Your task to perform on an android device: see tabs open on other devices in the chrome app Image 0: 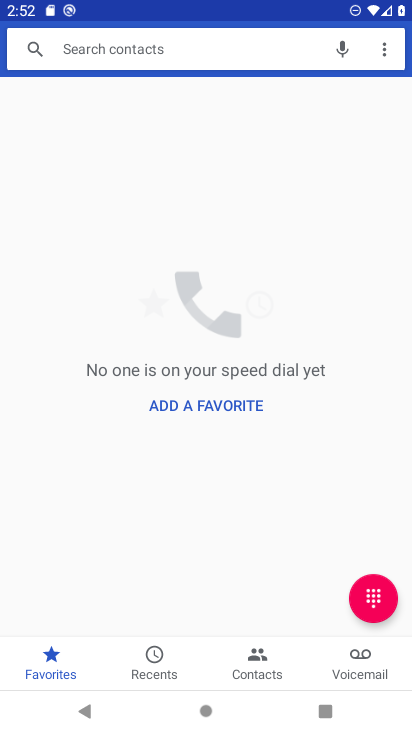
Step 0: press home button
Your task to perform on an android device: see tabs open on other devices in the chrome app Image 1: 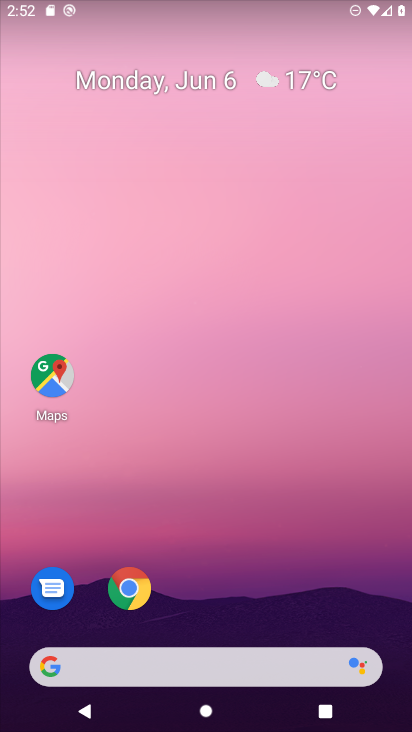
Step 1: click (131, 595)
Your task to perform on an android device: see tabs open on other devices in the chrome app Image 2: 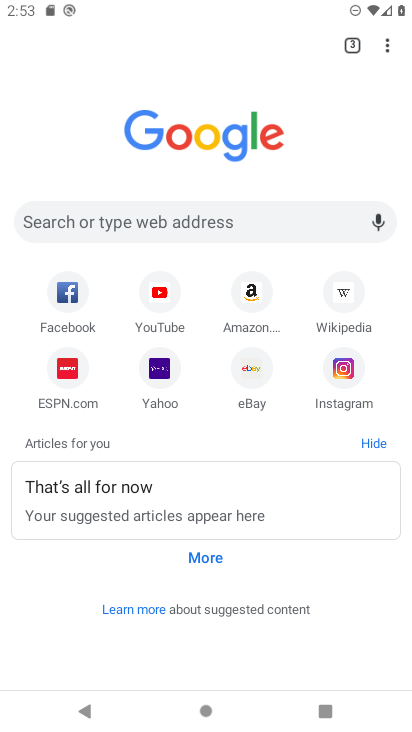
Step 2: click (387, 41)
Your task to perform on an android device: see tabs open on other devices in the chrome app Image 3: 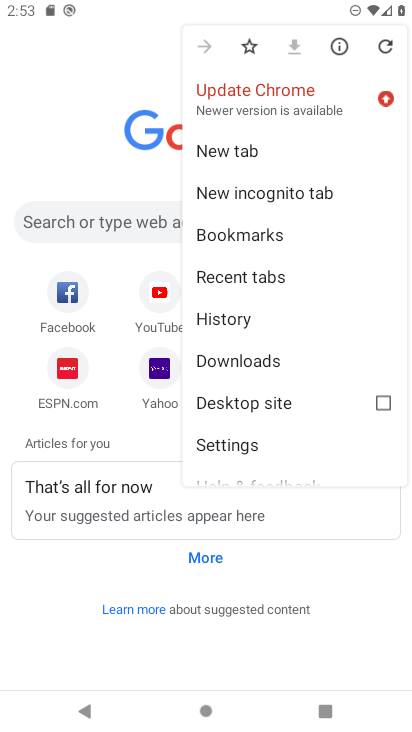
Step 3: click (297, 272)
Your task to perform on an android device: see tabs open on other devices in the chrome app Image 4: 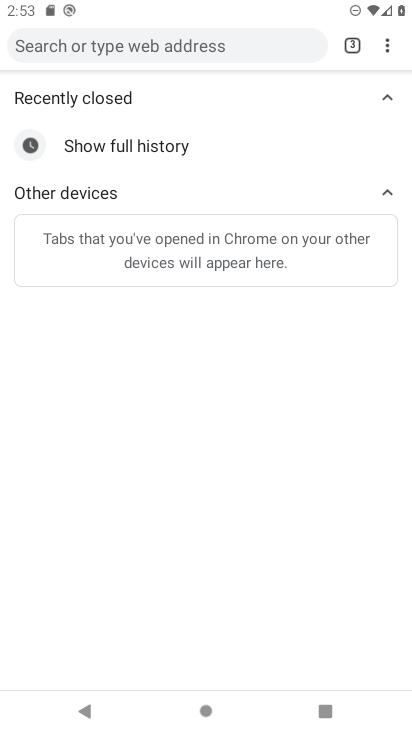
Step 4: task complete